Your task to perform on an android device: find photos in the google photos app Image 0: 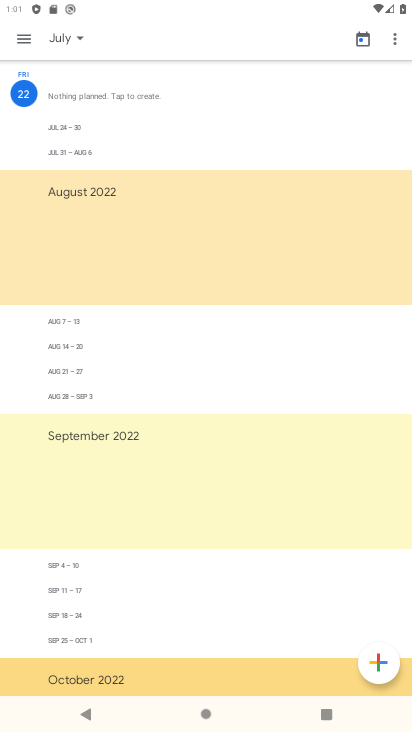
Step 0: press home button
Your task to perform on an android device: find photos in the google photos app Image 1: 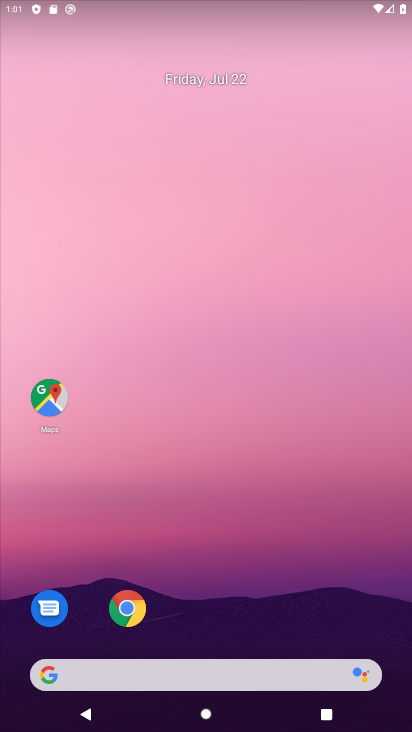
Step 1: drag from (389, 631) to (355, 90)
Your task to perform on an android device: find photos in the google photos app Image 2: 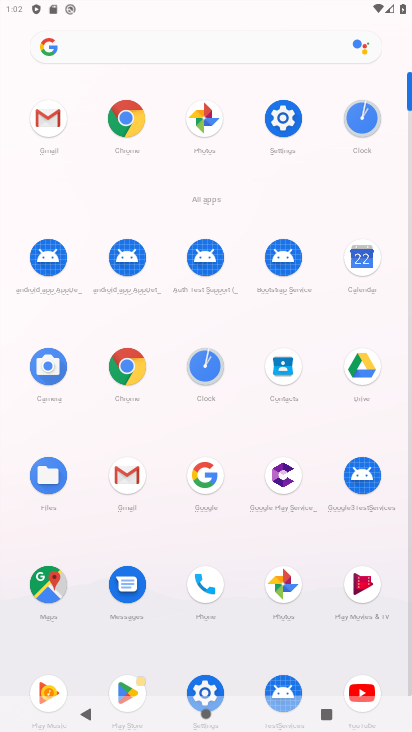
Step 2: click (274, 573)
Your task to perform on an android device: find photos in the google photos app Image 3: 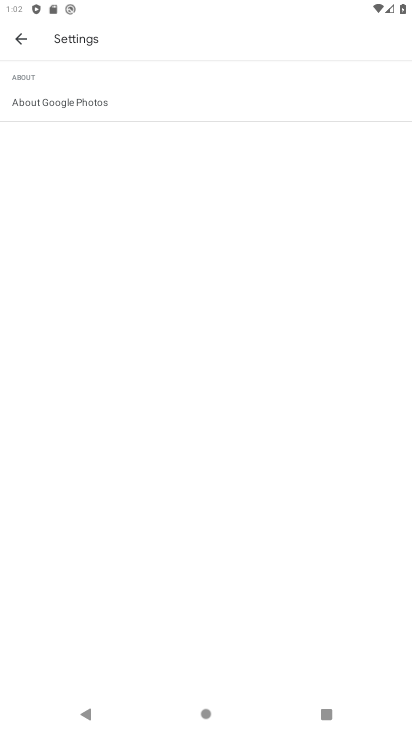
Step 3: press home button
Your task to perform on an android device: find photos in the google photos app Image 4: 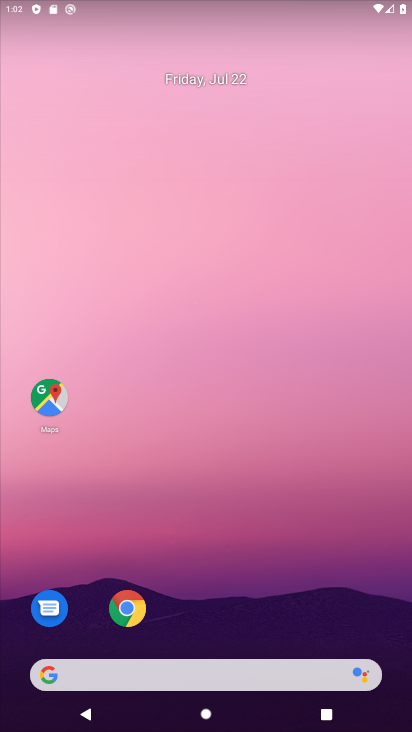
Step 4: drag from (403, 720) to (314, 77)
Your task to perform on an android device: find photos in the google photos app Image 5: 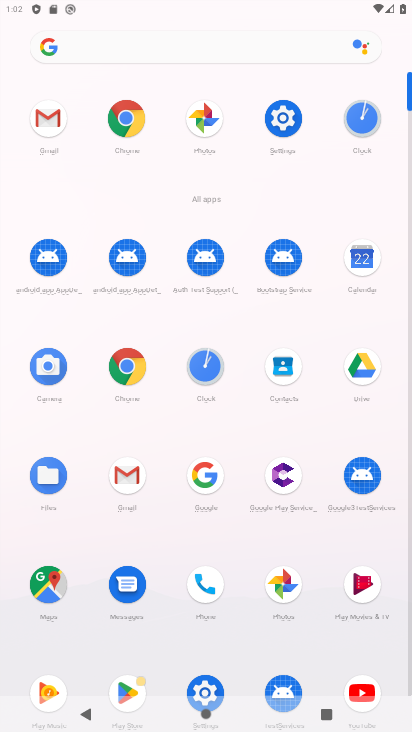
Step 5: click (273, 585)
Your task to perform on an android device: find photos in the google photos app Image 6: 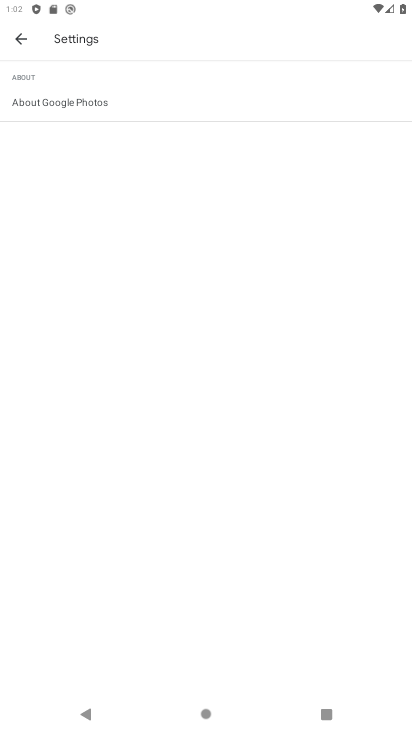
Step 6: click (24, 42)
Your task to perform on an android device: find photos in the google photos app Image 7: 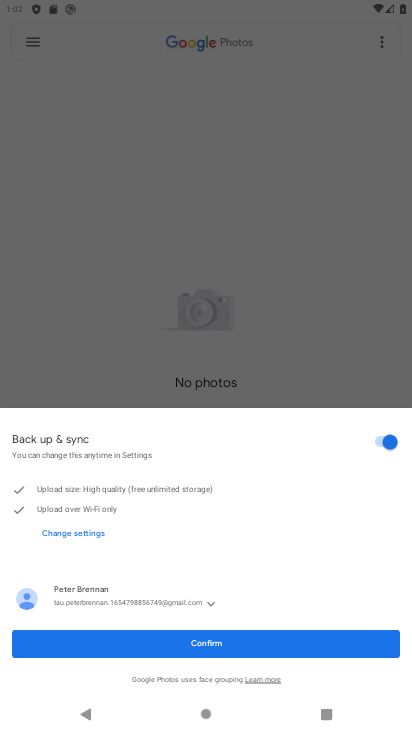
Step 7: click (231, 647)
Your task to perform on an android device: find photos in the google photos app Image 8: 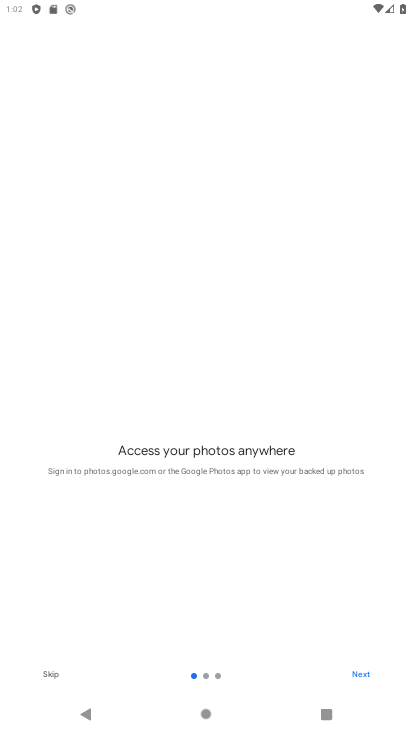
Step 8: click (355, 668)
Your task to perform on an android device: find photos in the google photos app Image 9: 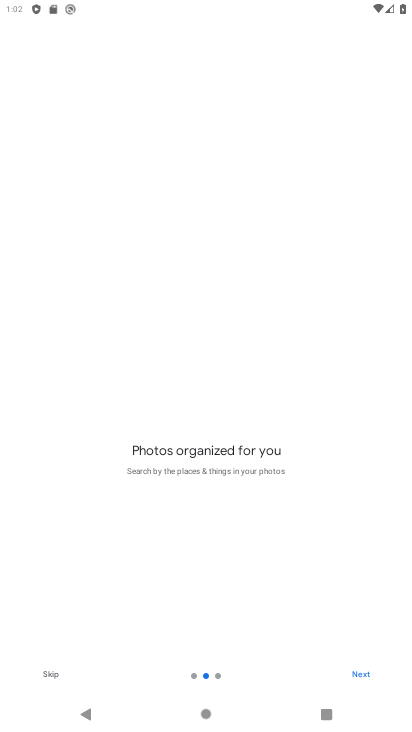
Step 9: click (355, 668)
Your task to perform on an android device: find photos in the google photos app Image 10: 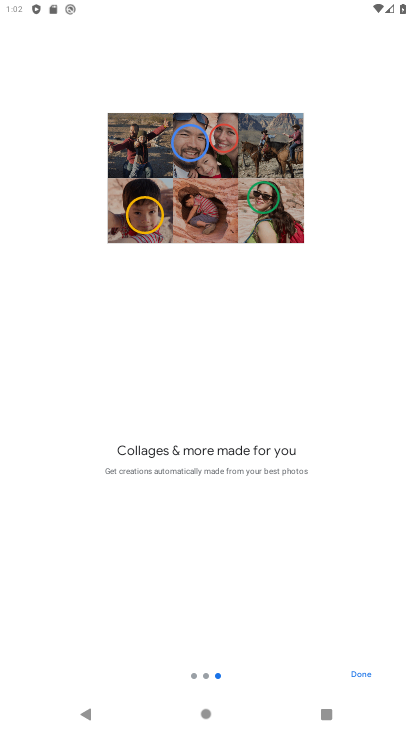
Step 10: click (355, 668)
Your task to perform on an android device: find photos in the google photos app Image 11: 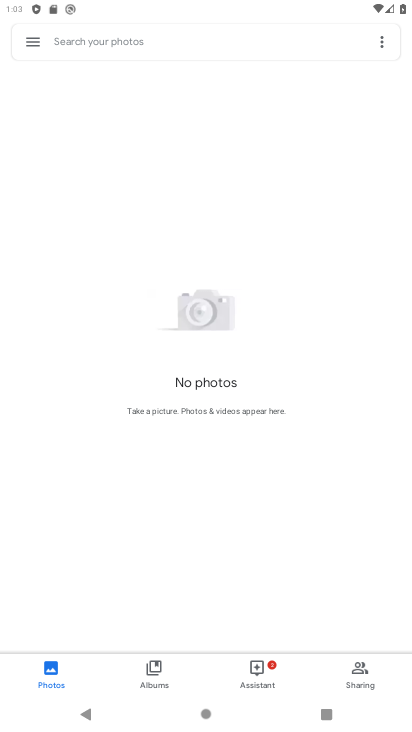
Step 11: click (51, 682)
Your task to perform on an android device: find photos in the google photos app Image 12: 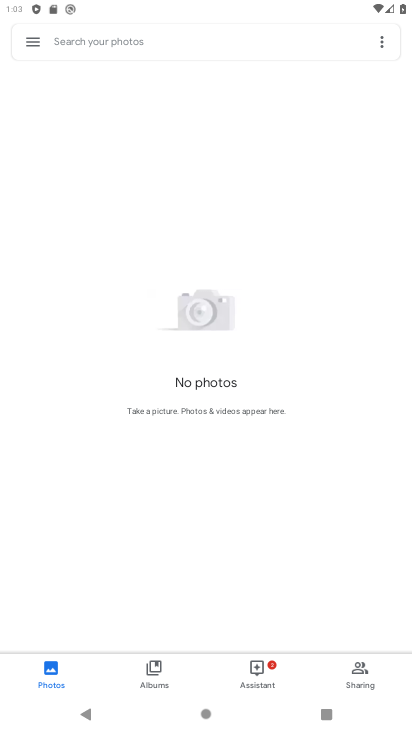
Step 12: task complete